Your task to perform on an android device: toggle show notifications on the lock screen Image 0: 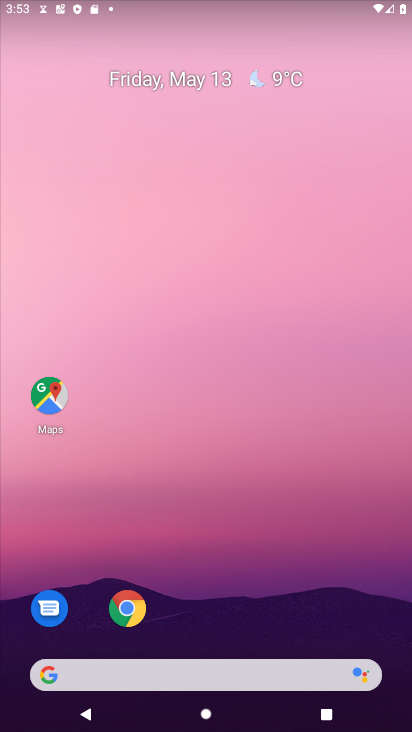
Step 0: press home button
Your task to perform on an android device: toggle show notifications on the lock screen Image 1: 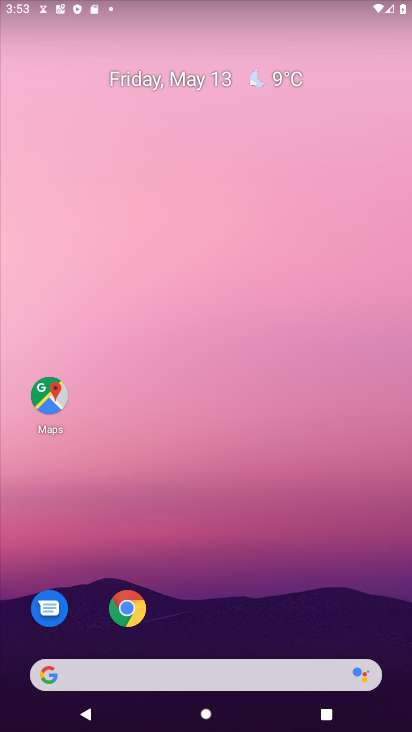
Step 1: click (117, 612)
Your task to perform on an android device: toggle show notifications on the lock screen Image 2: 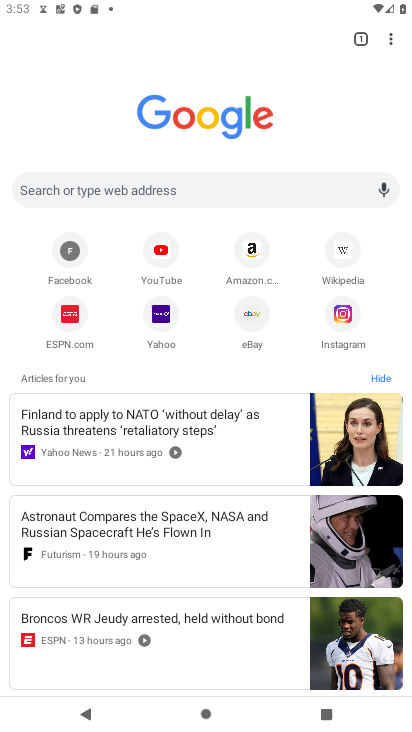
Step 2: press home button
Your task to perform on an android device: toggle show notifications on the lock screen Image 3: 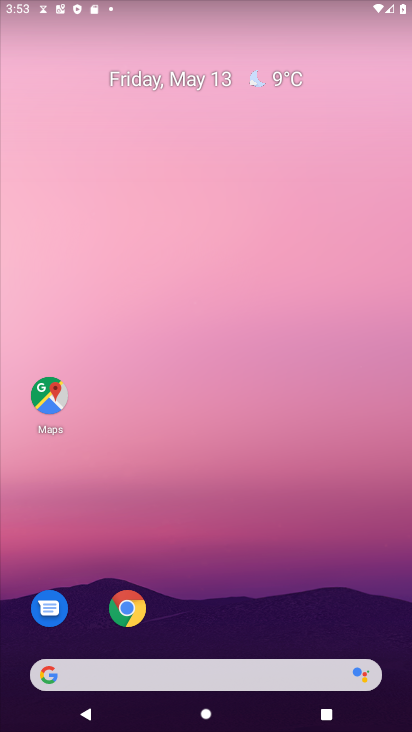
Step 3: drag from (223, 633) to (223, 311)
Your task to perform on an android device: toggle show notifications on the lock screen Image 4: 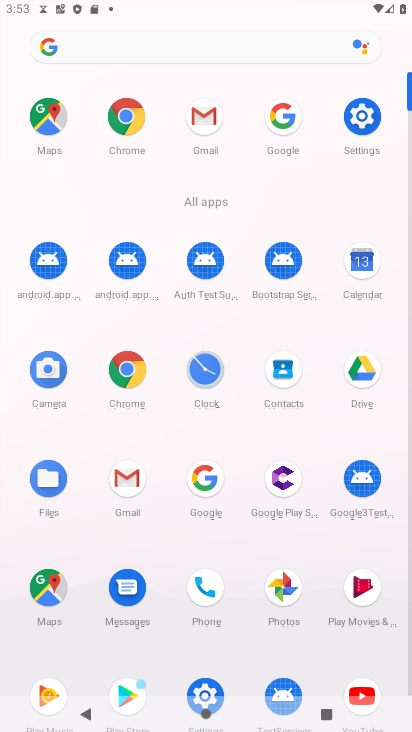
Step 4: click (372, 119)
Your task to perform on an android device: toggle show notifications on the lock screen Image 5: 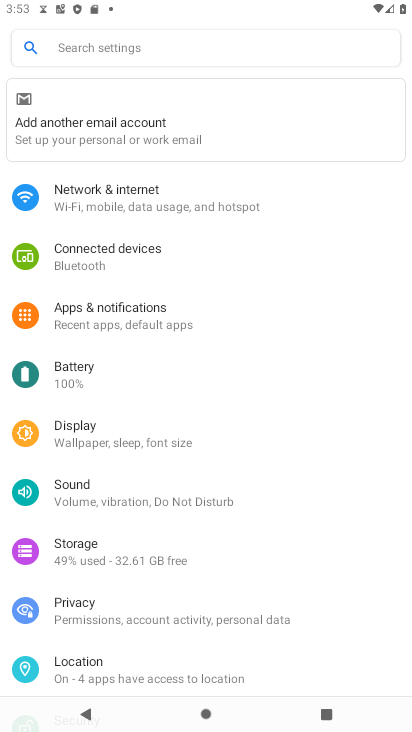
Step 5: click (93, 613)
Your task to perform on an android device: toggle show notifications on the lock screen Image 6: 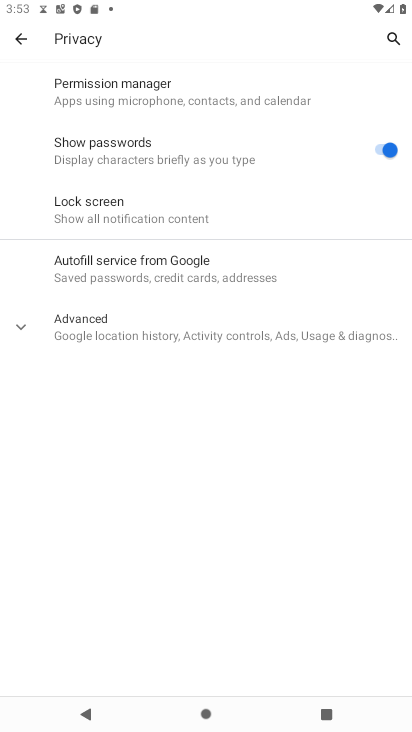
Step 6: click (106, 214)
Your task to perform on an android device: toggle show notifications on the lock screen Image 7: 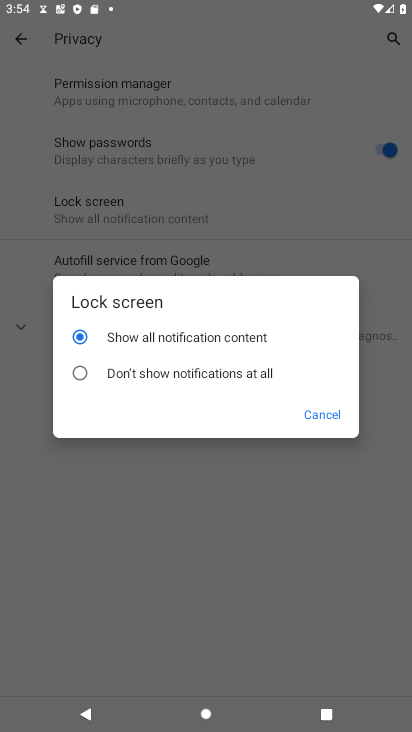
Step 7: click (320, 414)
Your task to perform on an android device: toggle show notifications on the lock screen Image 8: 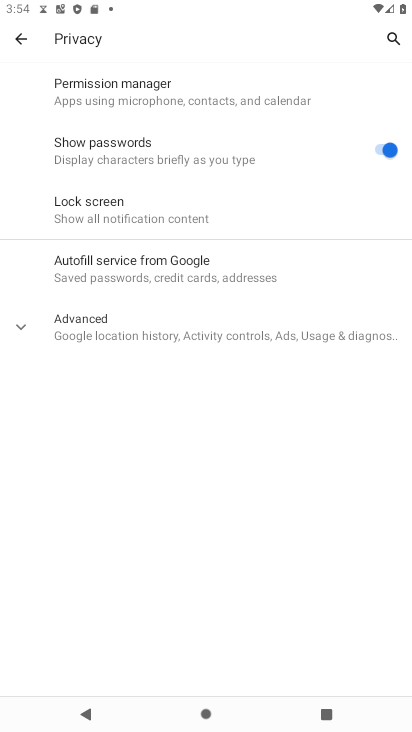
Step 8: task complete